Your task to perform on an android device: Go to Google Image 0: 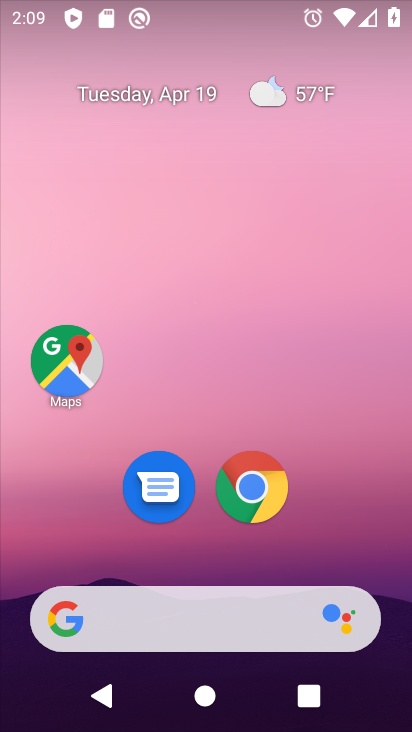
Step 0: drag from (358, 437) to (329, 140)
Your task to perform on an android device: Go to Google Image 1: 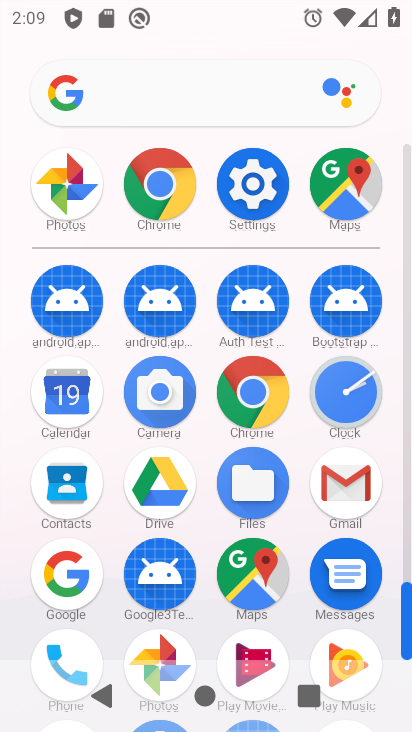
Step 1: click (65, 578)
Your task to perform on an android device: Go to Google Image 2: 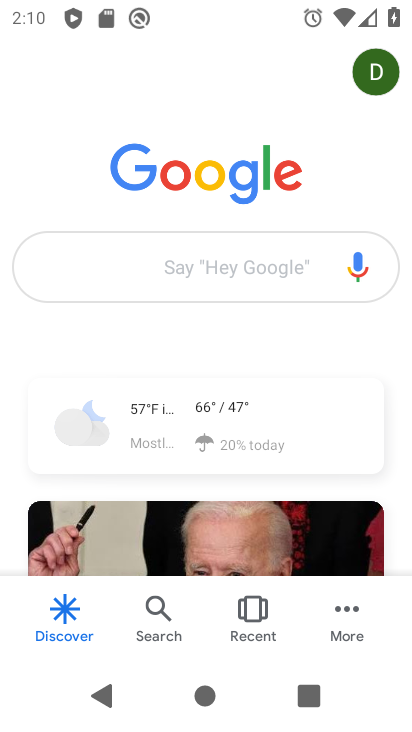
Step 2: task complete